Your task to perform on an android device: find which apps use the phone's location Image 0: 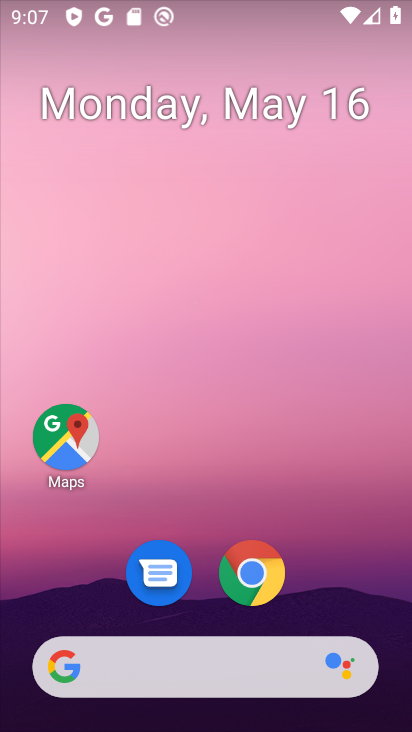
Step 0: drag from (361, 581) to (323, 131)
Your task to perform on an android device: find which apps use the phone's location Image 1: 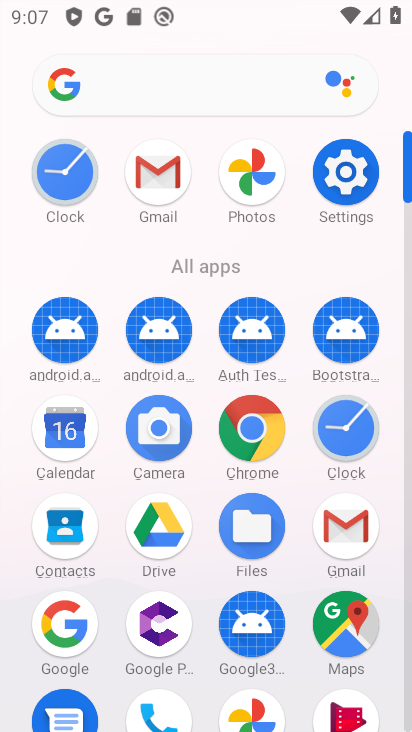
Step 1: click (347, 166)
Your task to perform on an android device: find which apps use the phone's location Image 2: 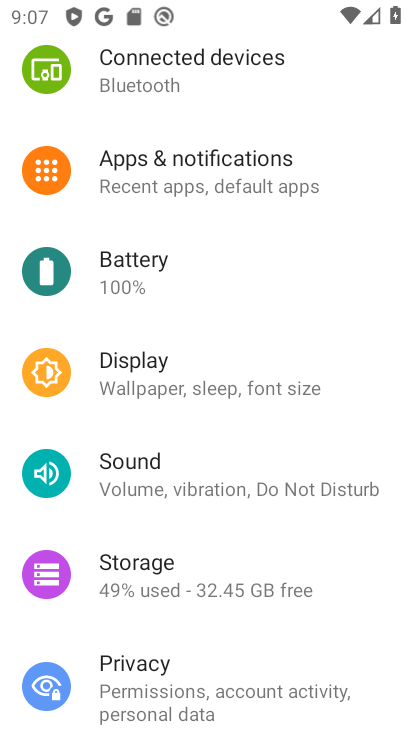
Step 2: drag from (254, 587) to (338, 263)
Your task to perform on an android device: find which apps use the phone's location Image 3: 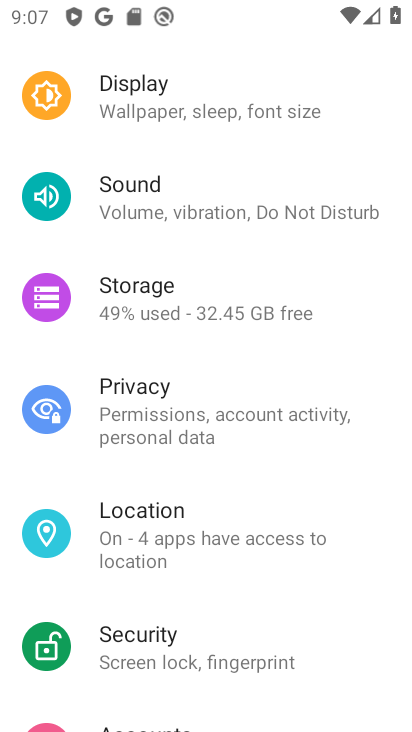
Step 3: click (178, 512)
Your task to perform on an android device: find which apps use the phone's location Image 4: 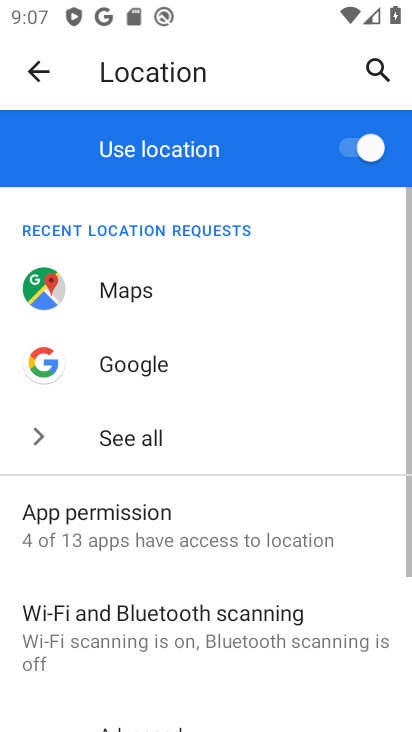
Step 4: click (140, 524)
Your task to perform on an android device: find which apps use the phone's location Image 5: 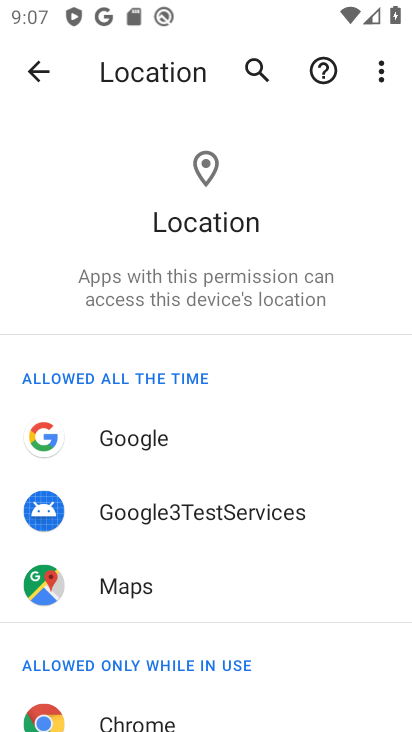
Step 5: task complete